Your task to perform on an android device: Open Google Maps and go to "Timeline" Image 0: 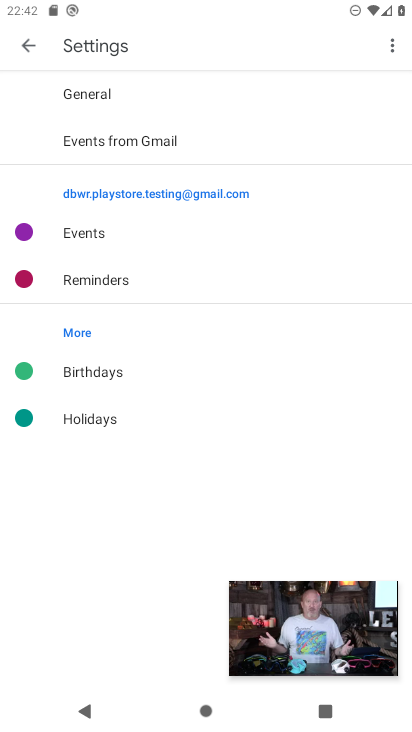
Step 0: press back button
Your task to perform on an android device: Open Google Maps and go to "Timeline" Image 1: 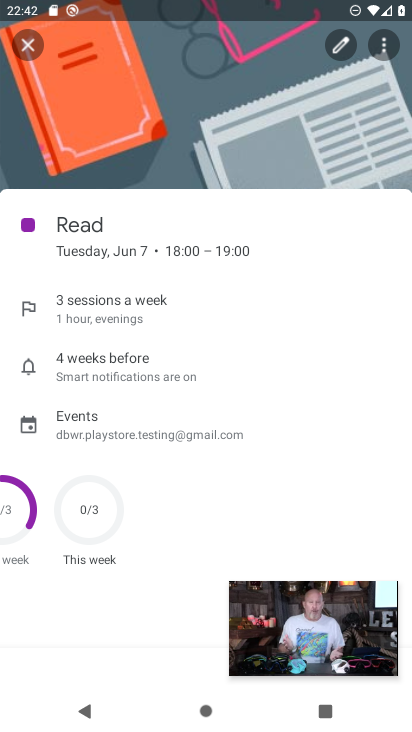
Step 1: press home button
Your task to perform on an android device: Open Google Maps and go to "Timeline" Image 2: 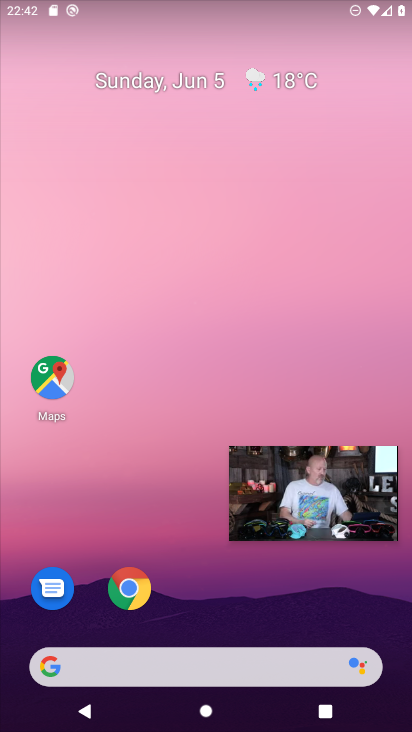
Step 2: drag from (207, 607) to (200, 154)
Your task to perform on an android device: Open Google Maps and go to "Timeline" Image 3: 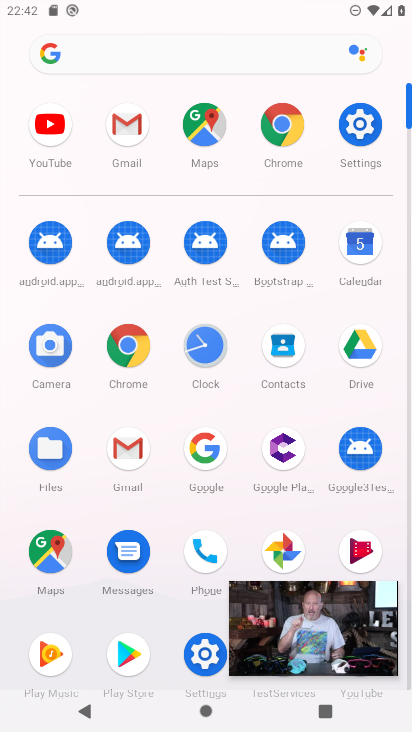
Step 3: click (202, 141)
Your task to perform on an android device: Open Google Maps and go to "Timeline" Image 4: 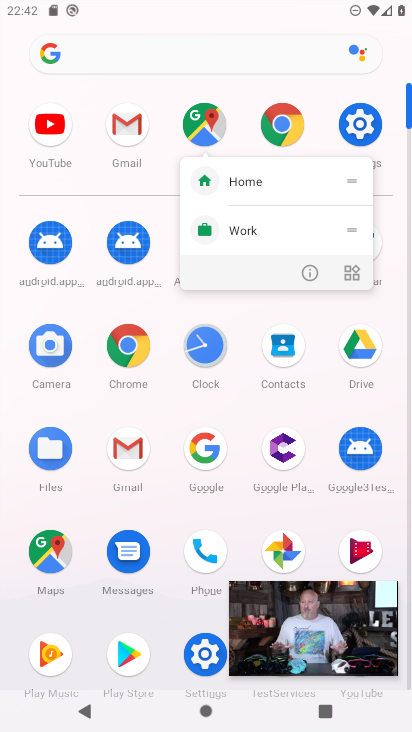
Step 4: click (221, 136)
Your task to perform on an android device: Open Google Maps and go to "Timeline" Image 5: 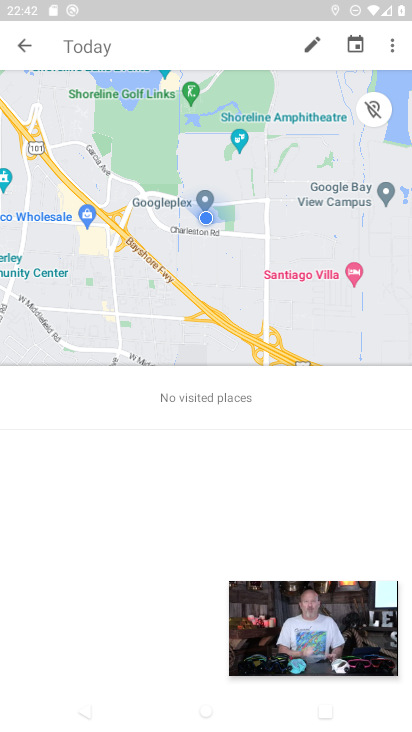
Step 5: click (23, 51)
Your task to perform on an android device: Open Google Maps and go to "Timeline" Image 6: 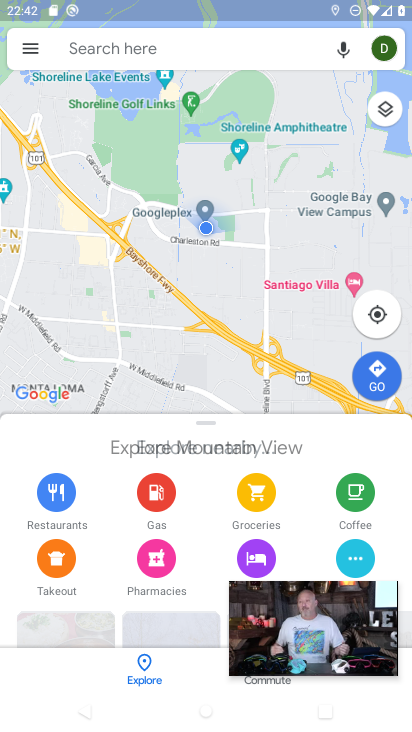
Step 6: click (40, 56)
Your task to perform on an android device: Open Google Maps and go to "Timeline" Image 7: 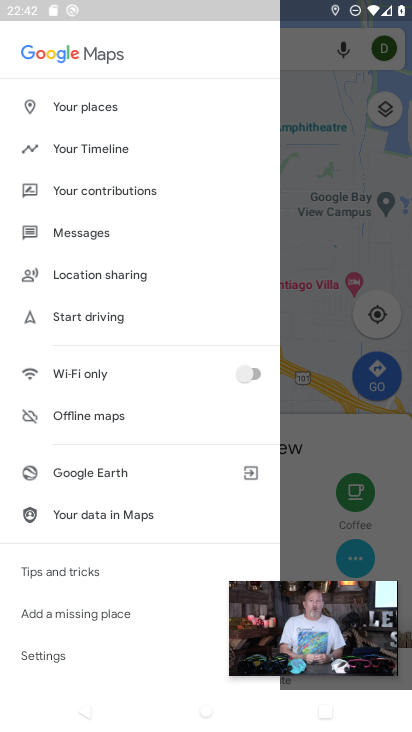
Step 7: click (127, 153)
Your task to perform on an android device: Open Google Maps and go to "Timeline" Image 8: 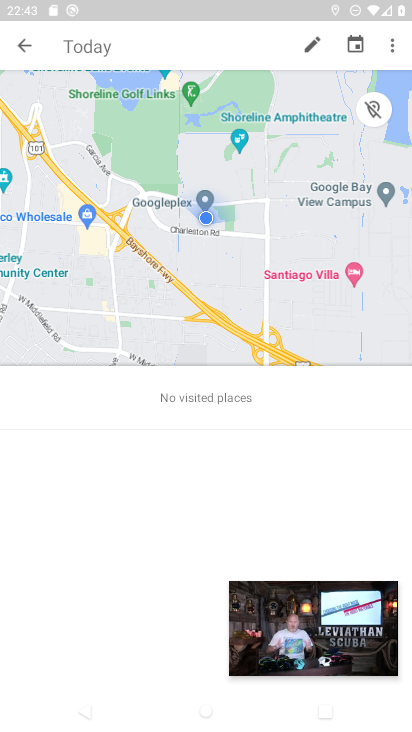
Step 8: task complete